Your task to perform on an android device: Search for sony triple a on target, select the first entry, add it to the cart, then select checkout. Image 0: 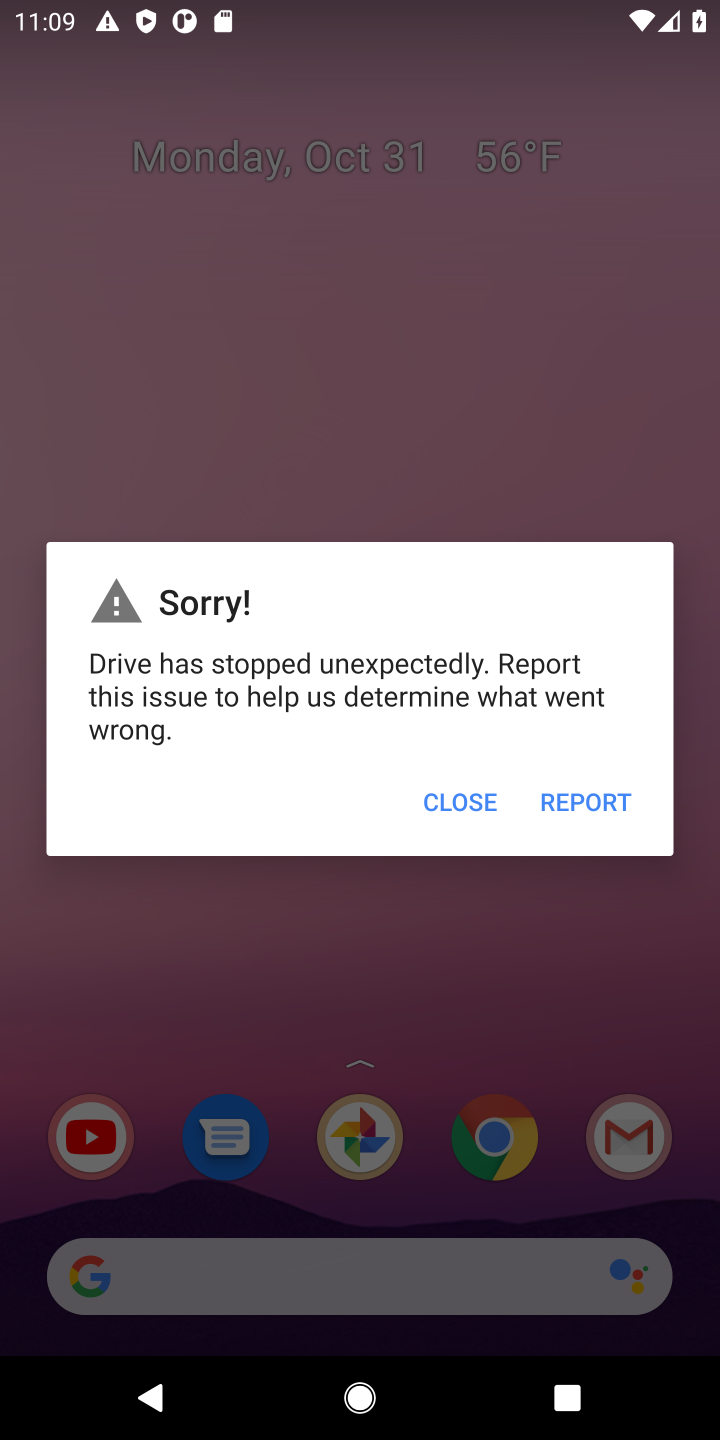
Step 0: press home button
Your task to perform on an android device: Search for sony triple a on target, select the first entry, add it to the cart, then select checkout. Image 1: 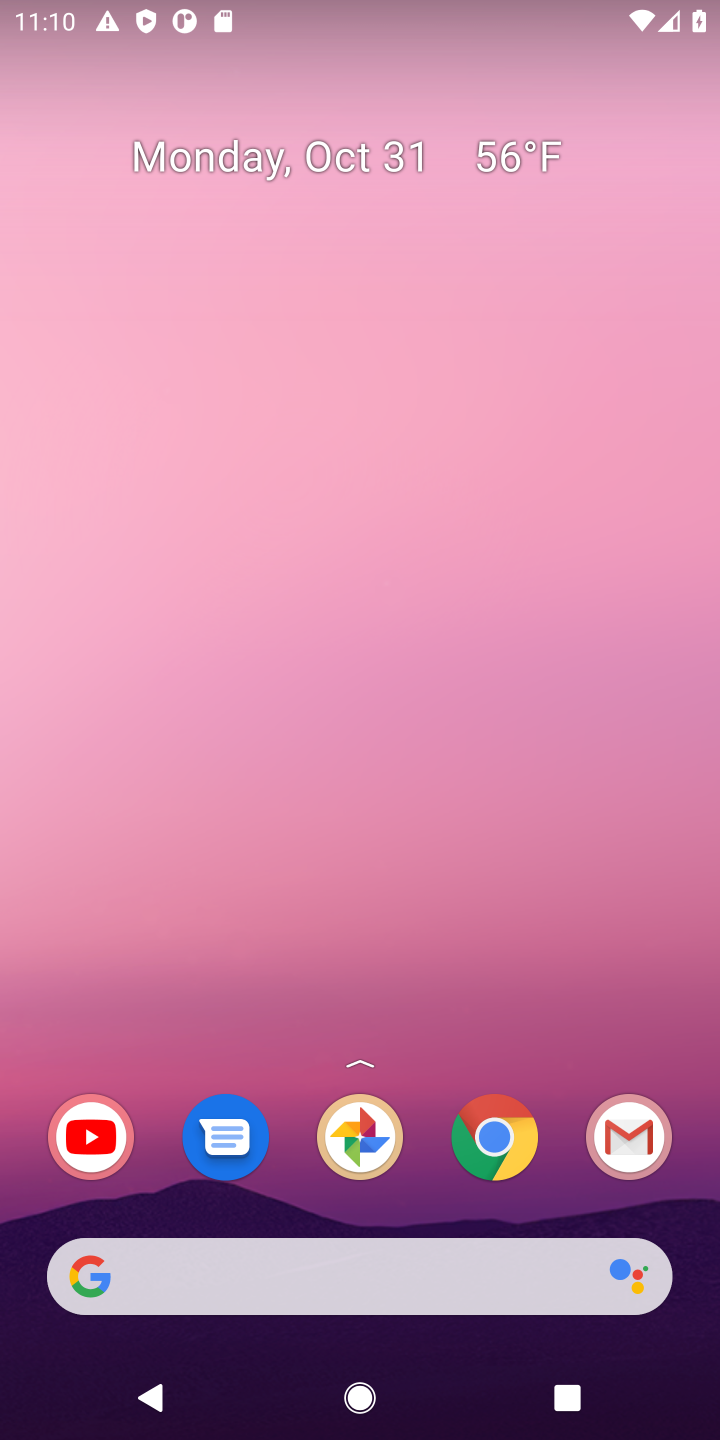
Step 1: click (491, 1137)
Your task to perform on an android device: Search for sony triple a on target, select the first entry, add it to the cart, then select checkout. Image 2: 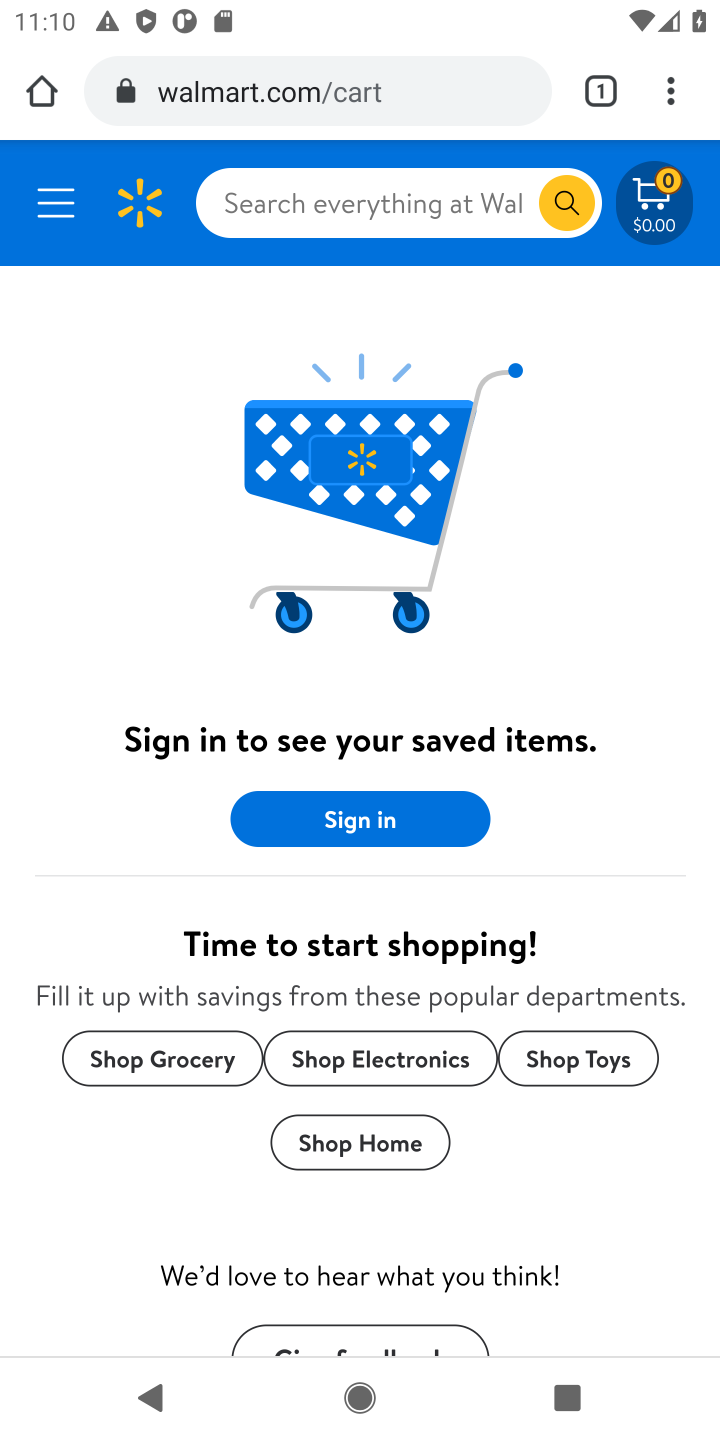
Step 2: click (386, 68)
Your task to perform on an android device: Search for sony triple a on target, select the first entry, add it to the cart, then select checkout. Image 3: 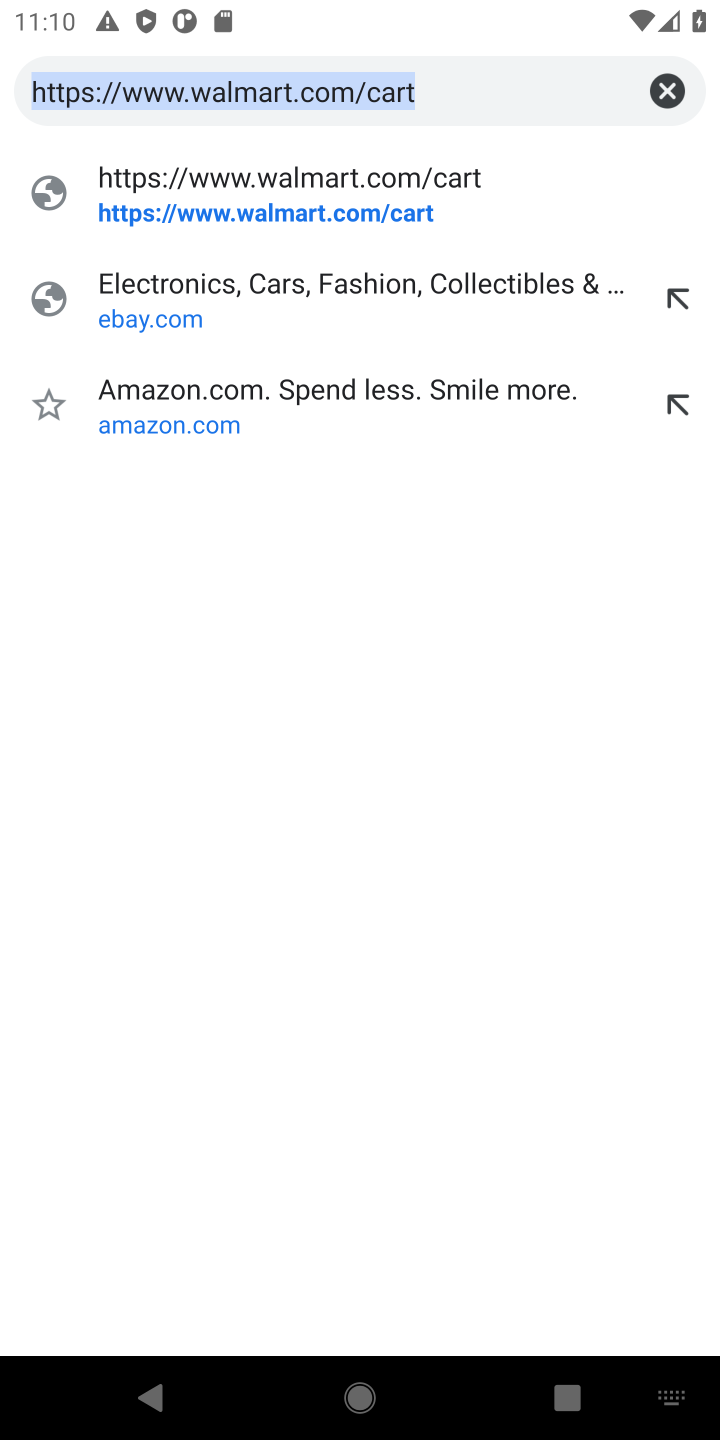
Step 3: click (674, 90)
Your task to perform on an android device: Search for sony triple a on target, select the first entry, add it to the cart, then select checkout. Image 4: 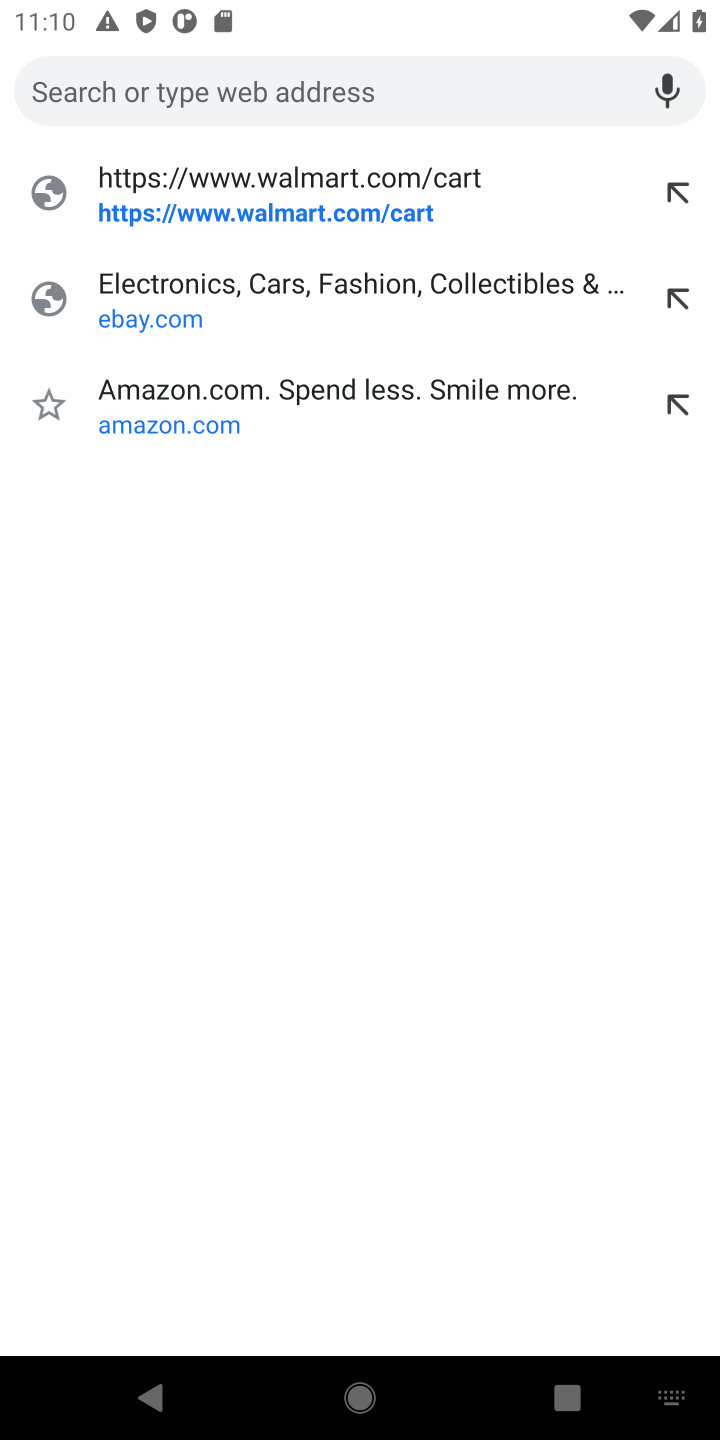
Step 4: type "target"
Your task to perform on an android device: Search for sony triple a on target, select the first entry, add it to the cart, then select checkout. Image 5: 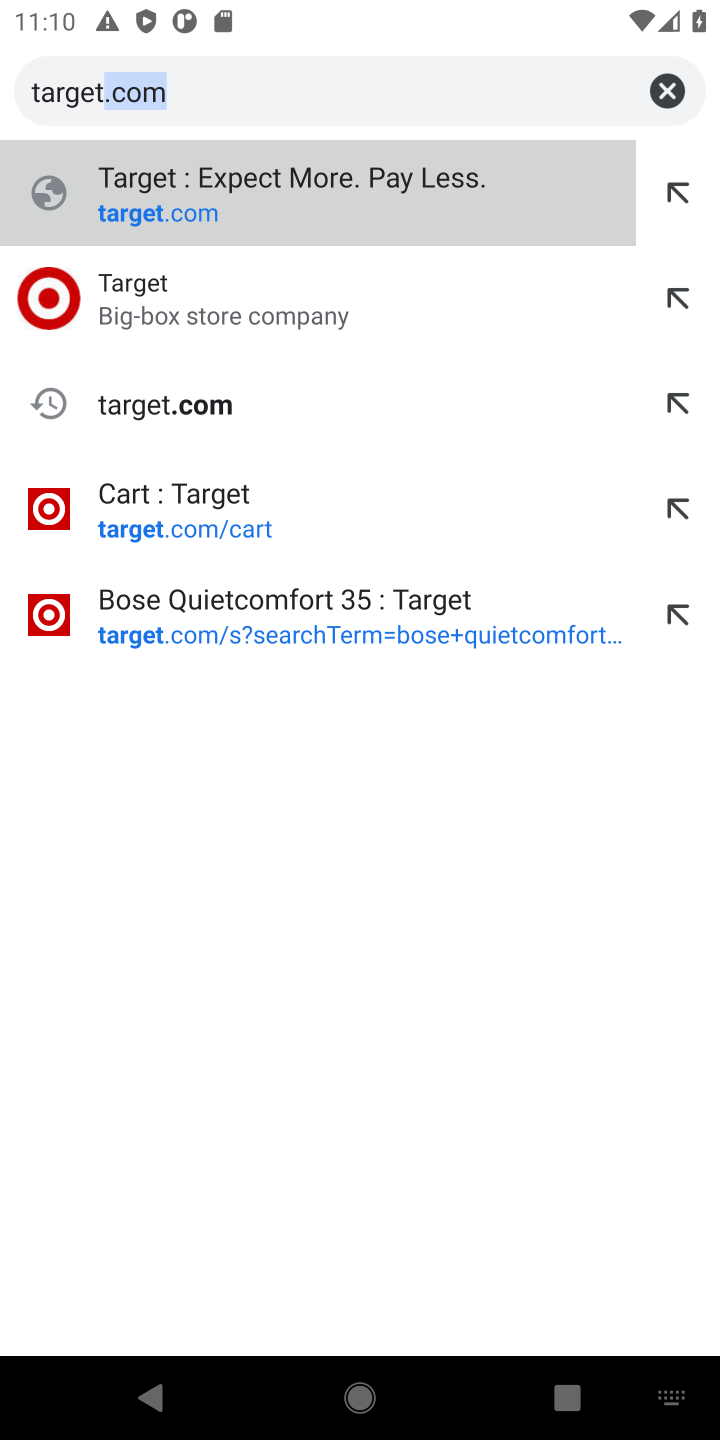
Step 5: click (204, 316)
Your task to perform on an android device: Search for sony triple a on target, select the first entry, add it to the cart, then select checkout. Image 6: 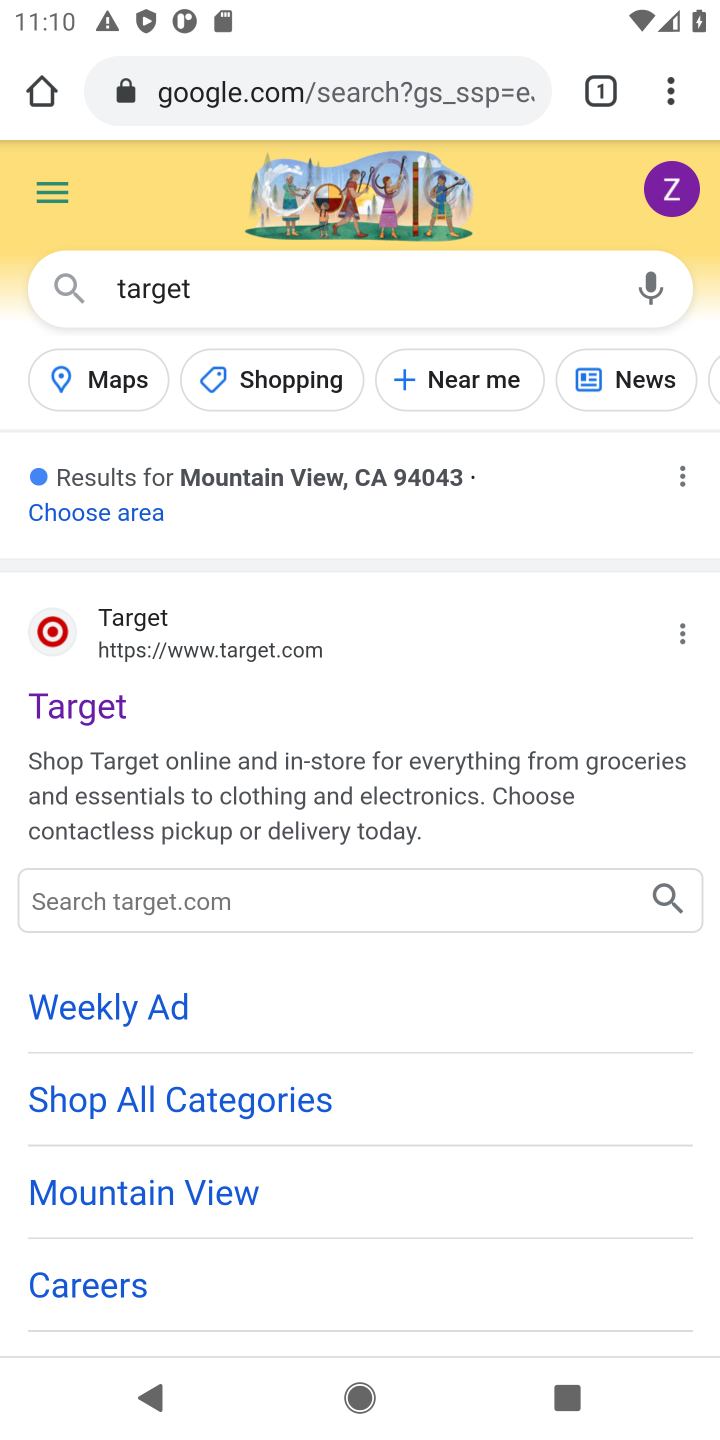
Step 6: click (184, 686)
Your task to perform on an android device: Search for sony triple a on target, select the first entry, add it to the cart, then select checkout. Image 7: 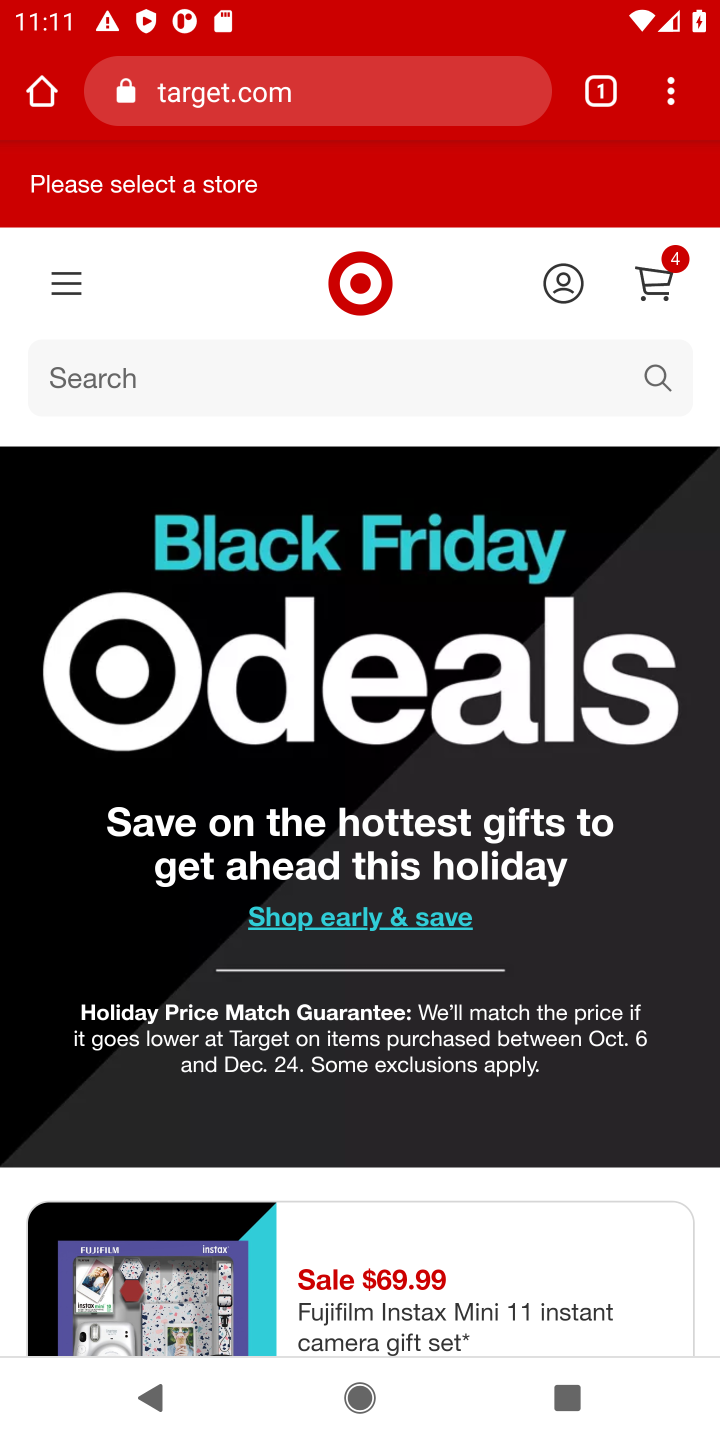
Step 7: click (342, 385)
Your task to perform on an android device: Search for sony triple a on target, select the first entry, add it to the cart, then select checkout. Image 8: 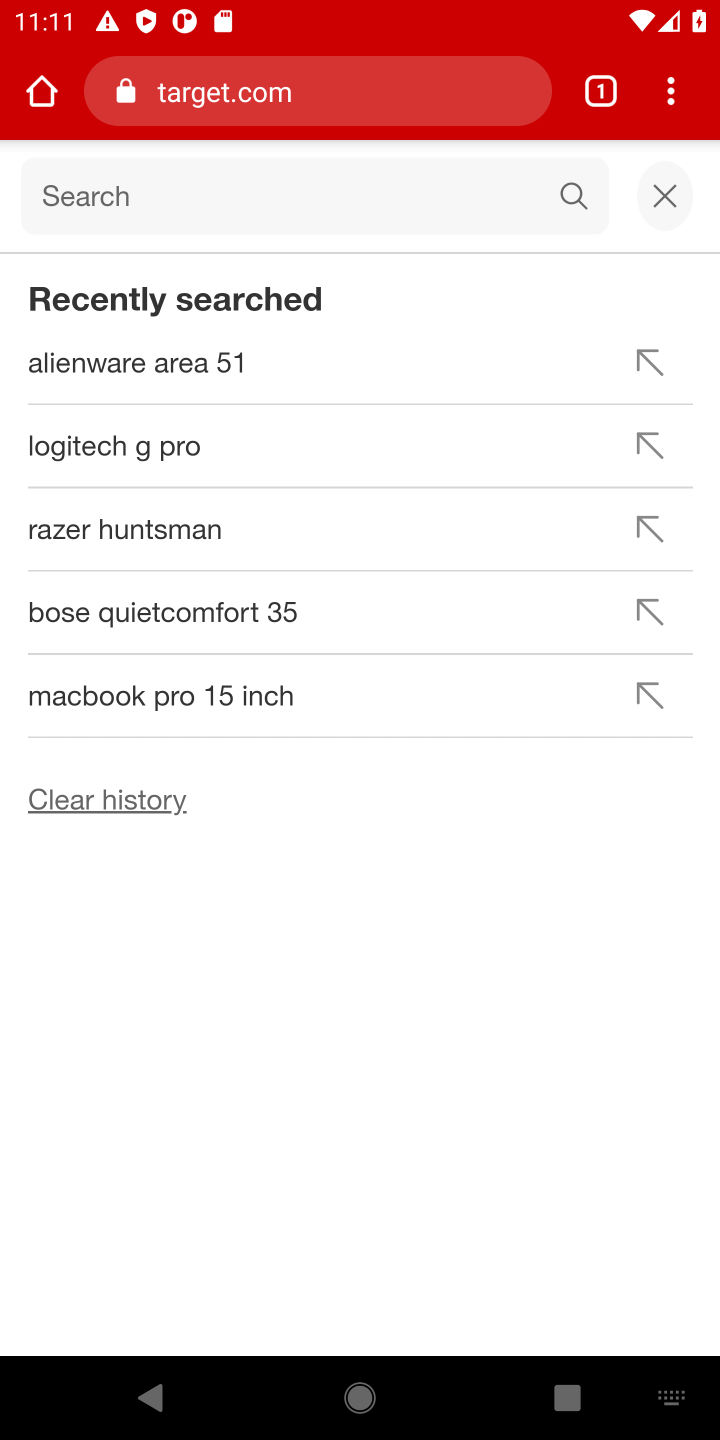
Step 8: type "sony triple a on target"
Your task to perform on an android device: Search for sony triple a on target, select the first entry, add it to the cart, then select checkout. Image 9: 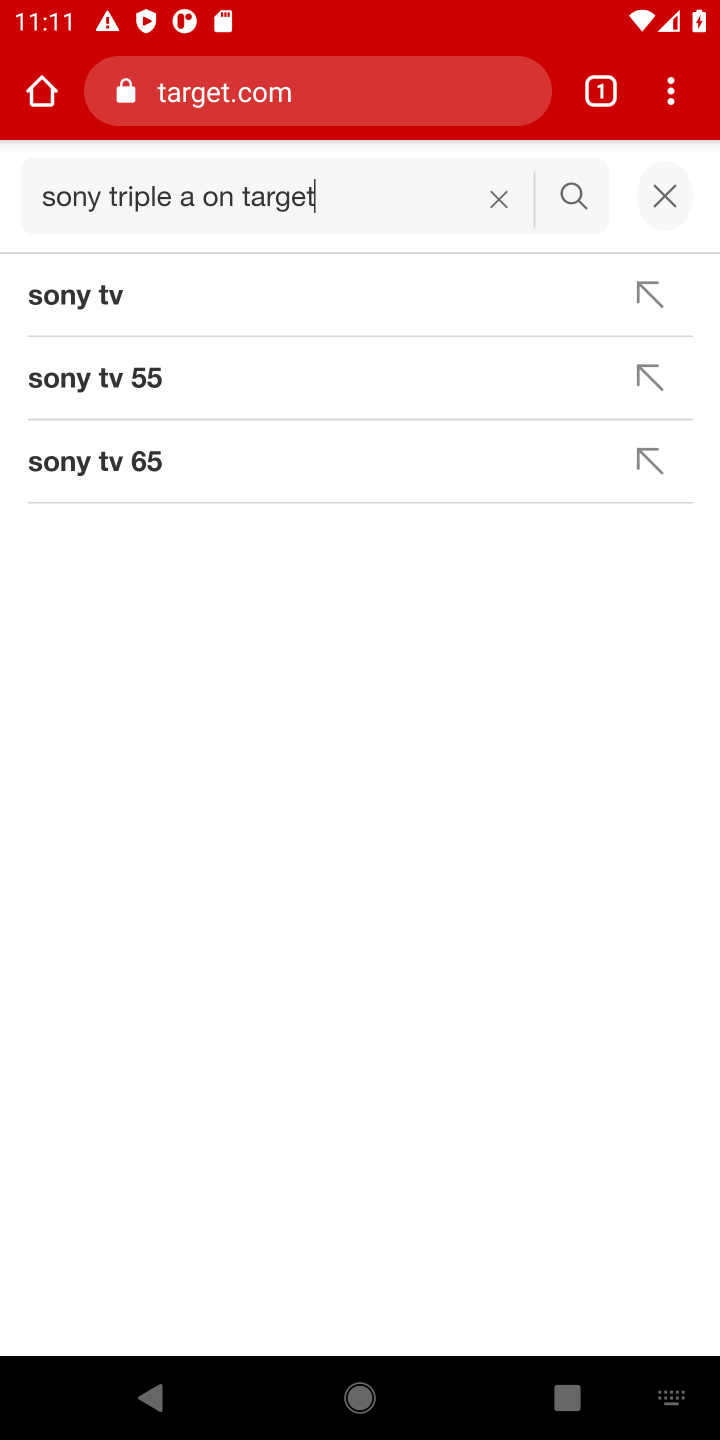
Step 9: click (577, 193)
Your task to perform on an android device: Search for sony triple a on target, select the first entry, add it to the cart, then select checkout. Image 10: 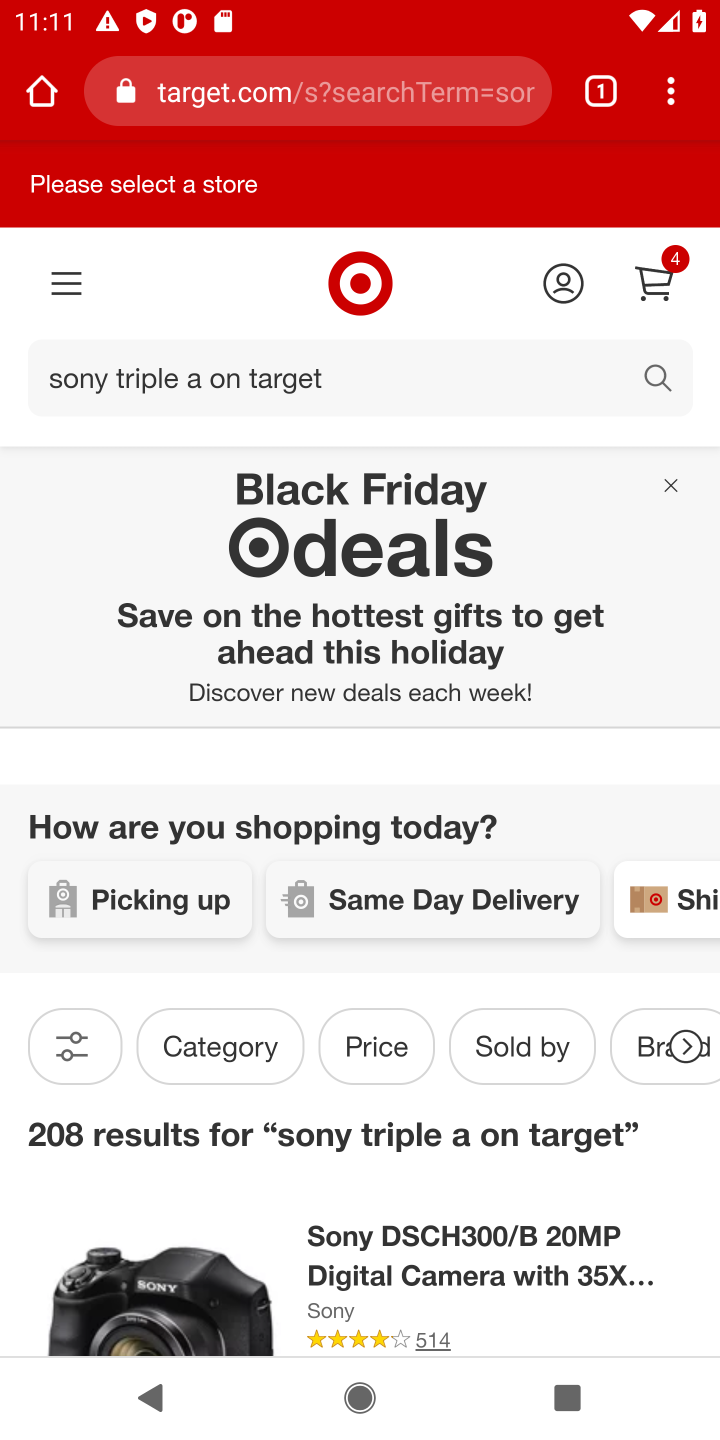
Step 10: drag from (432, 1256) to (498, 749)
Your task to perform on an android device: Search for sony triple a on target, select the first entry, add it to the cart, then select checkout. Image 11: 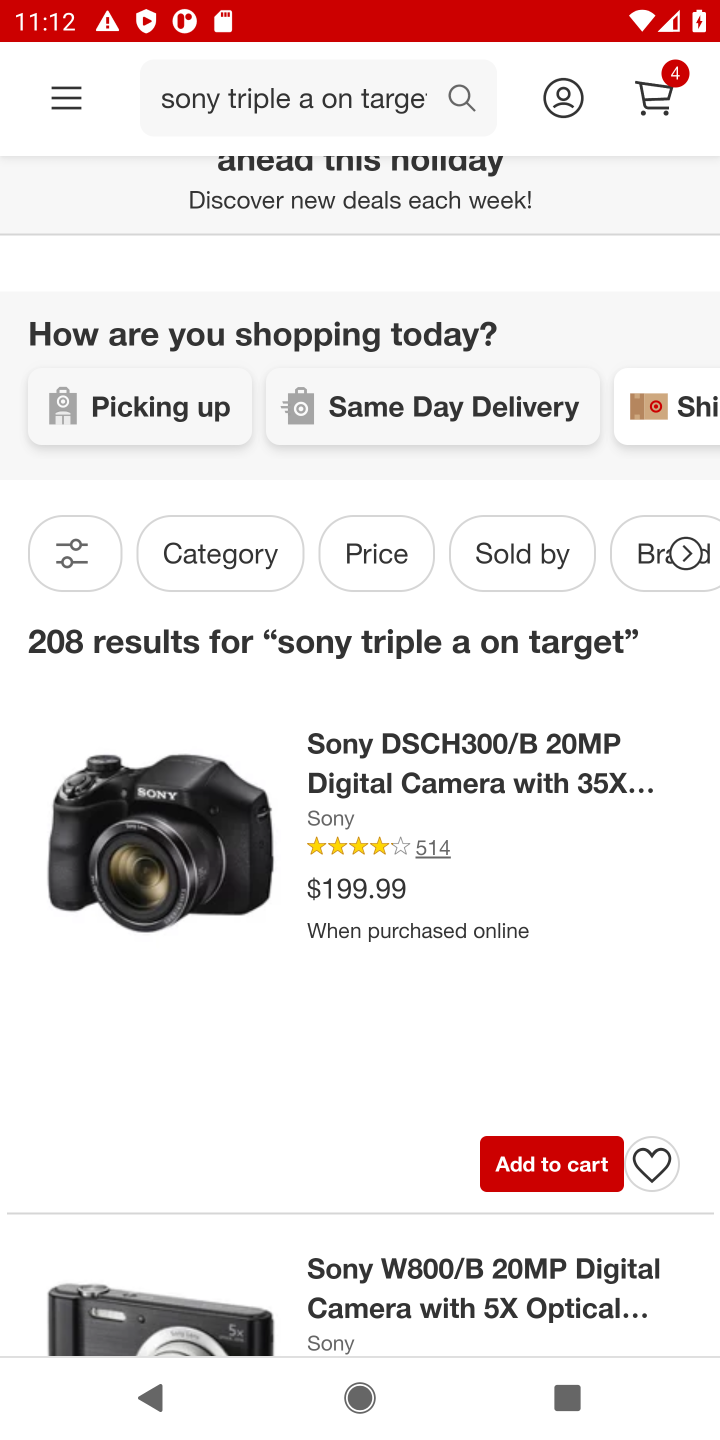
Step 11: click (551, 1172)
Your task to perform on an android device: Search for sony triple a on target, select the first entry, add it to the cart, then select checkout. Image 12: 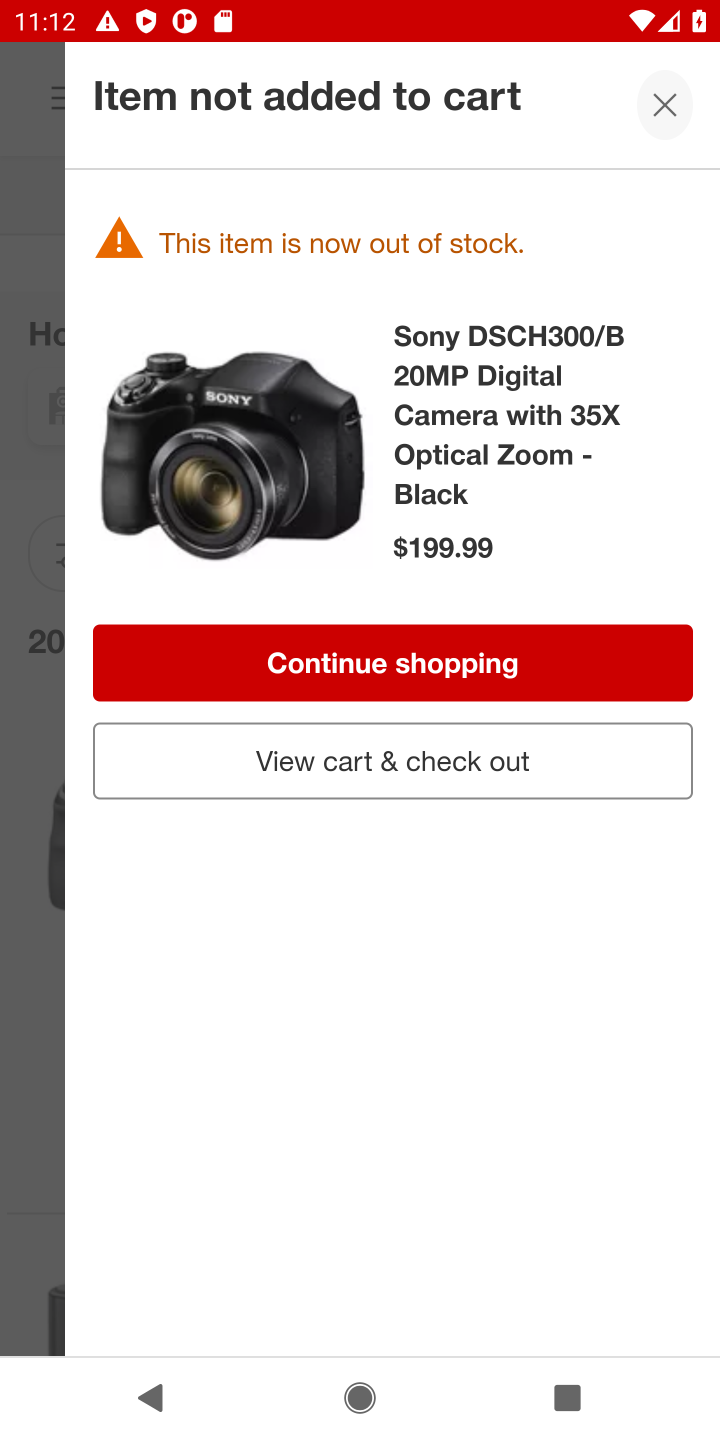
Step 12: click (408, 767)
Your task to perform on an android device: Search for sony triple a on target, select the first entry, add it to the cart, then select checkout. Image 13: 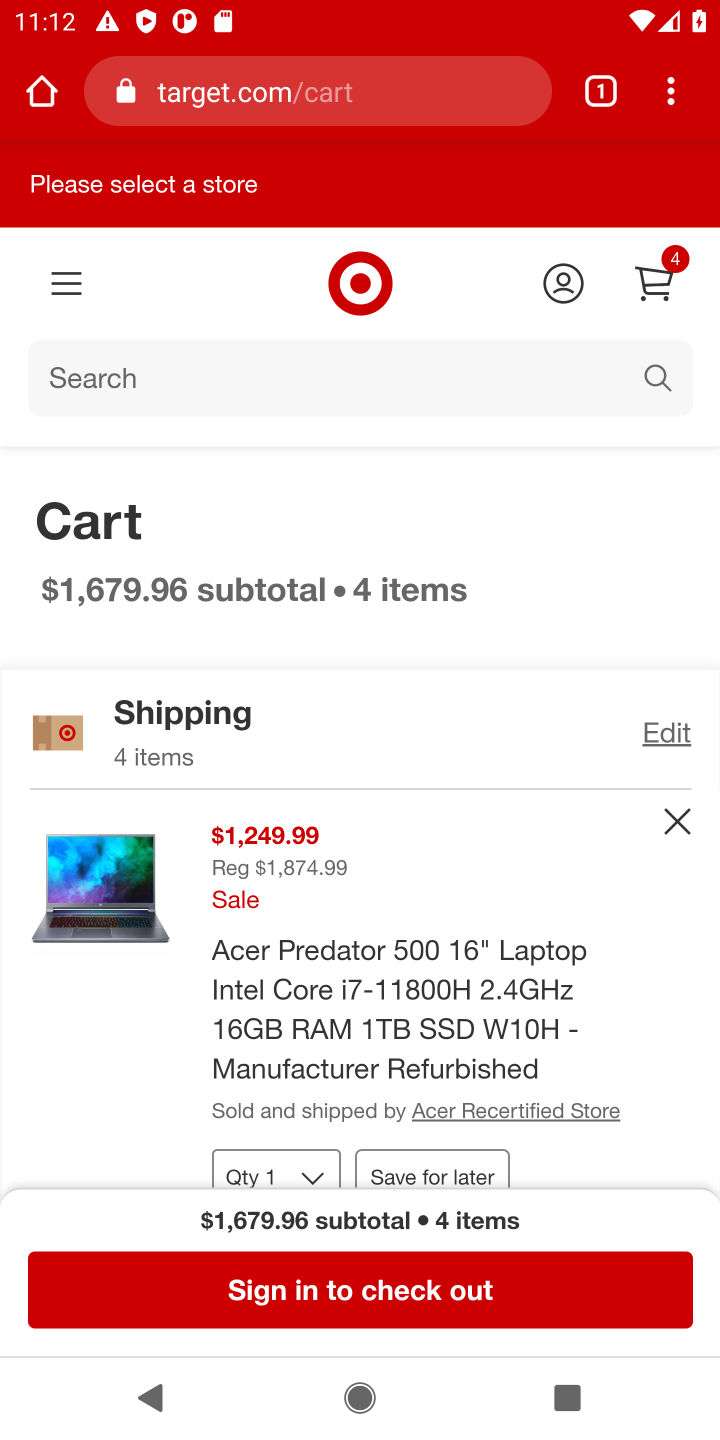
Step 13: click (386, 1297)
Your task to perform on an android device: Search for sony triple a on target, select the first entry, add it to the cart, then select checkout. Image 14: 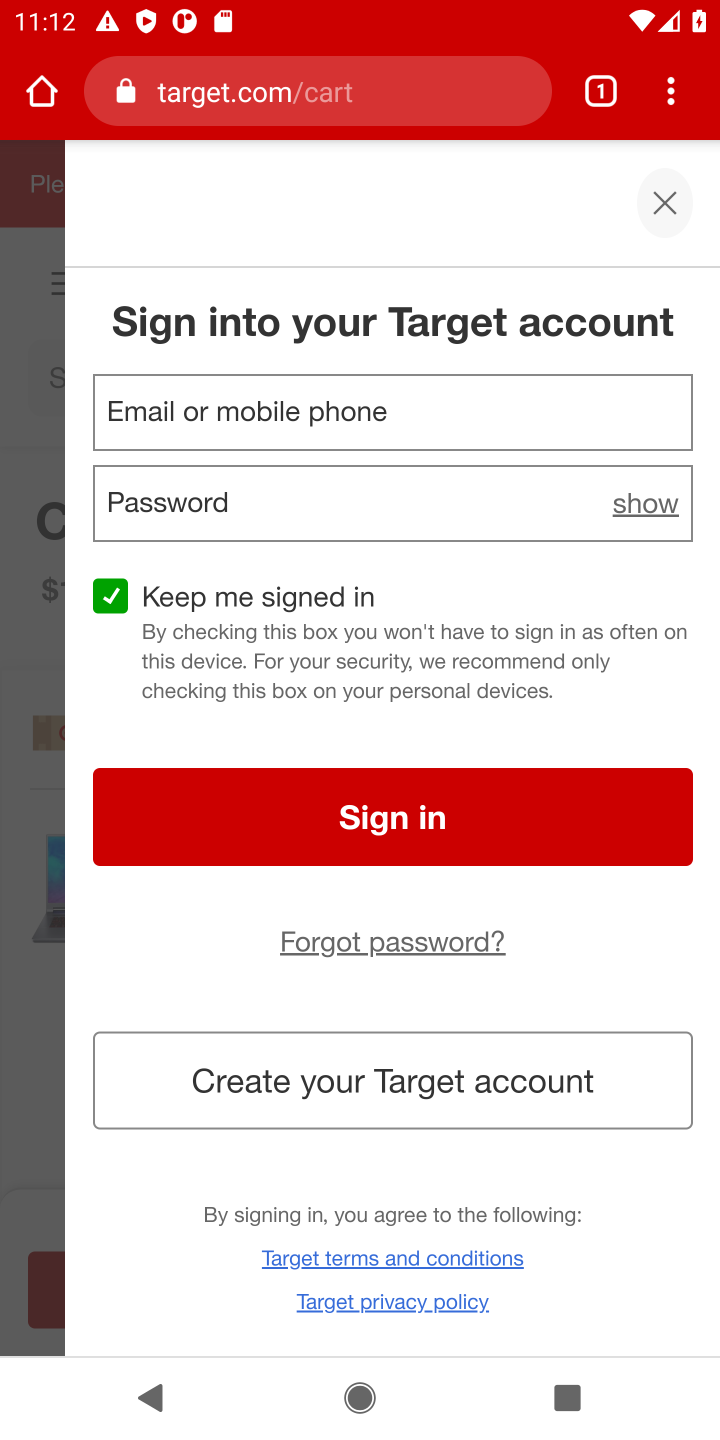
Step 14: task complete